Your task to perform on an android device: install app "Messenger Lite" Image 0: 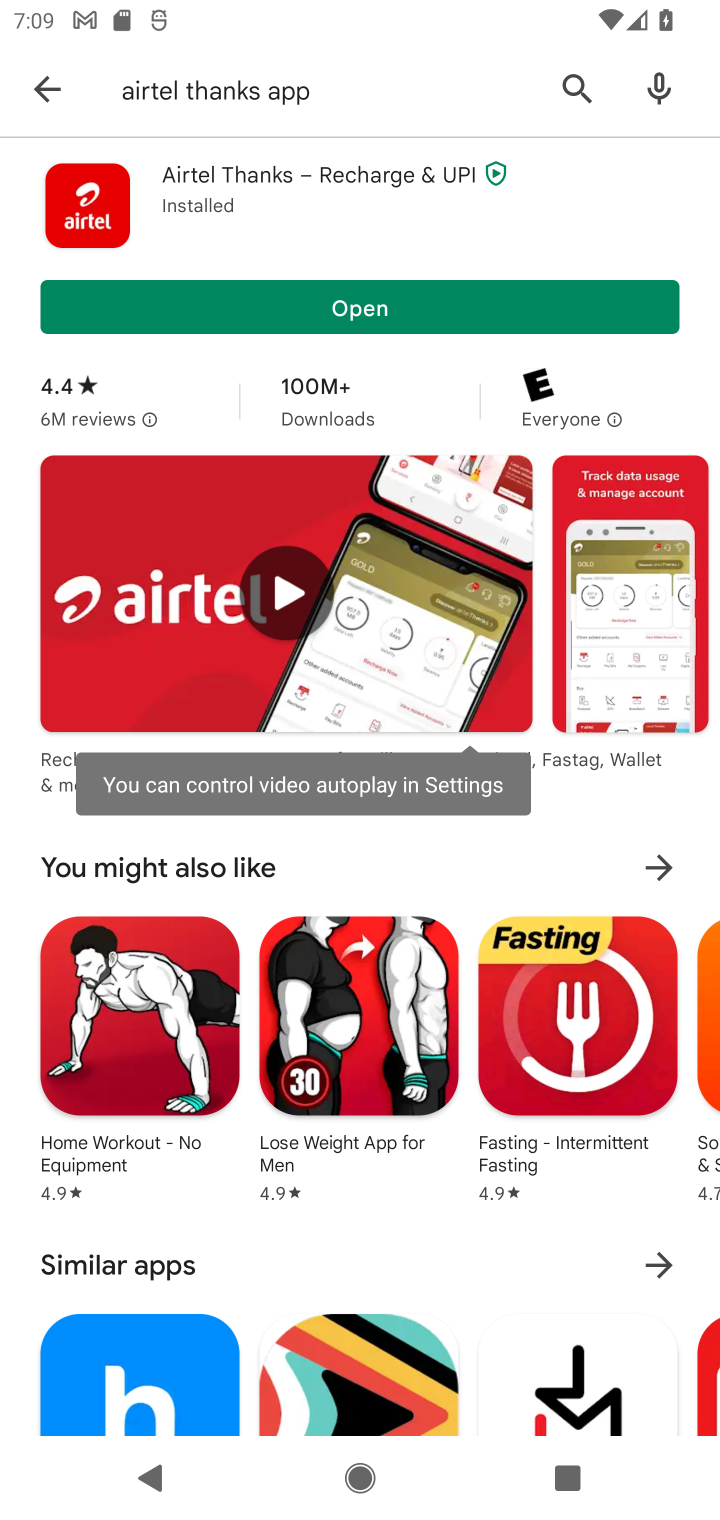
Step 0: press home button
Your task to perform on an android device: install app "Messenger Lite" Image 1: 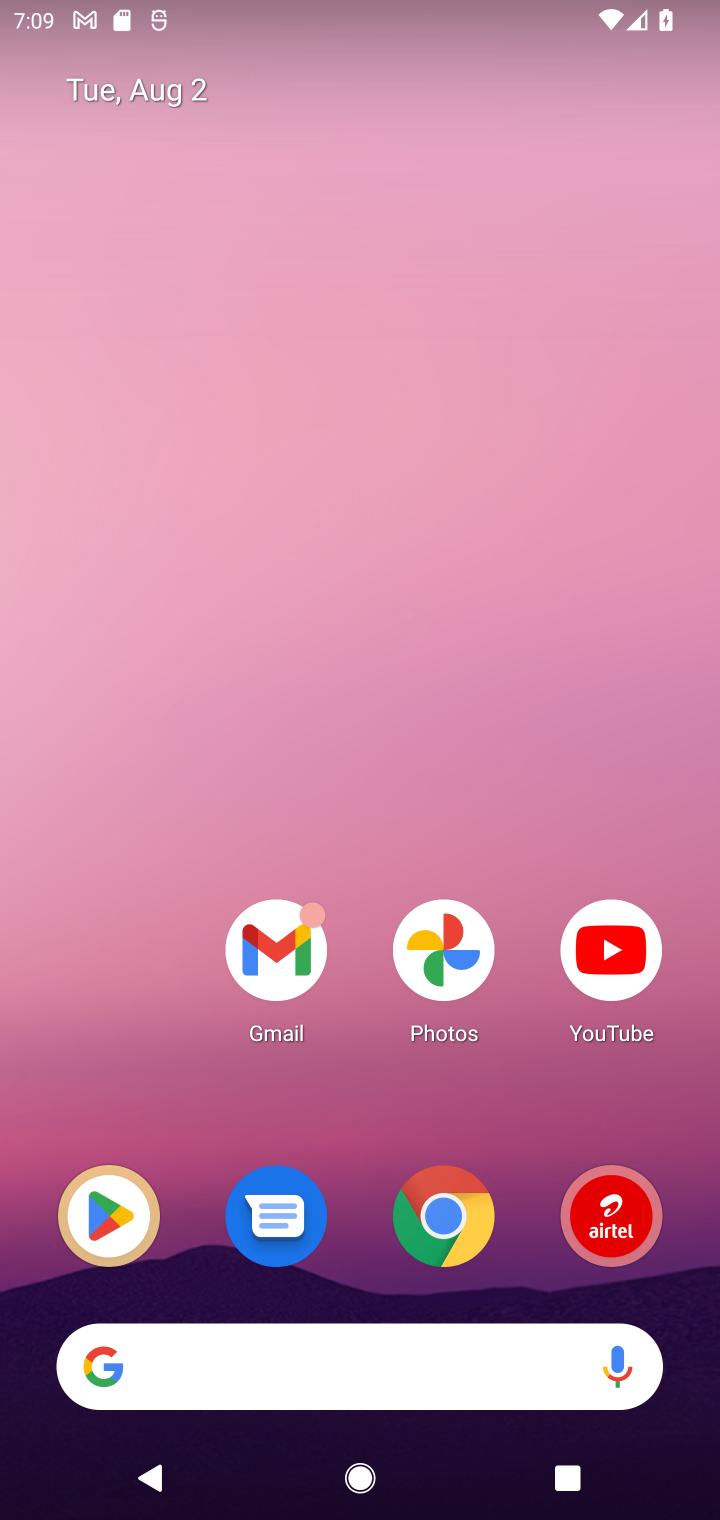
Step 1: click (93, 1220)
Your task to perform on an android device: install app "Messenger Lite" Image 2: 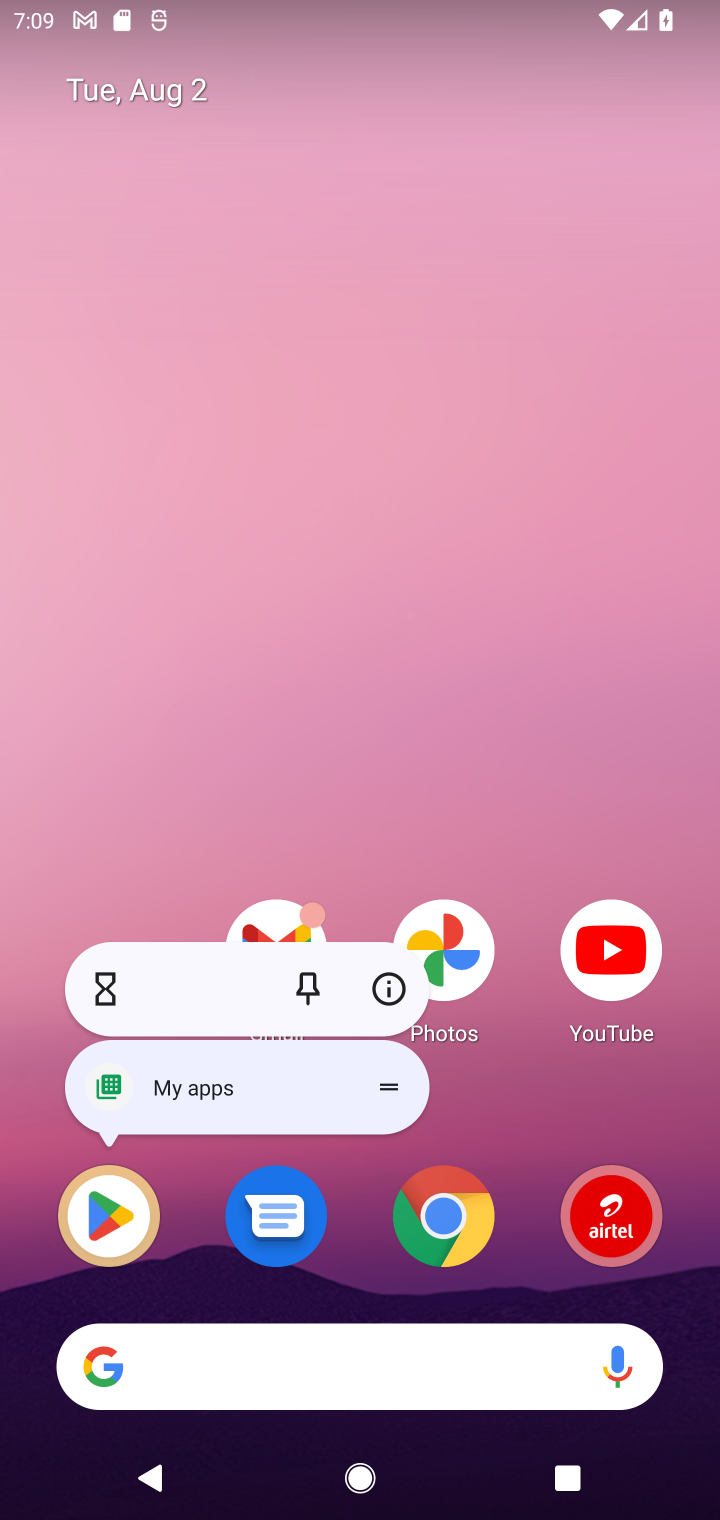
Step 2: click (104, 1216)
Your task to perform on an android device: install app "Messenger Lite" Image 3: 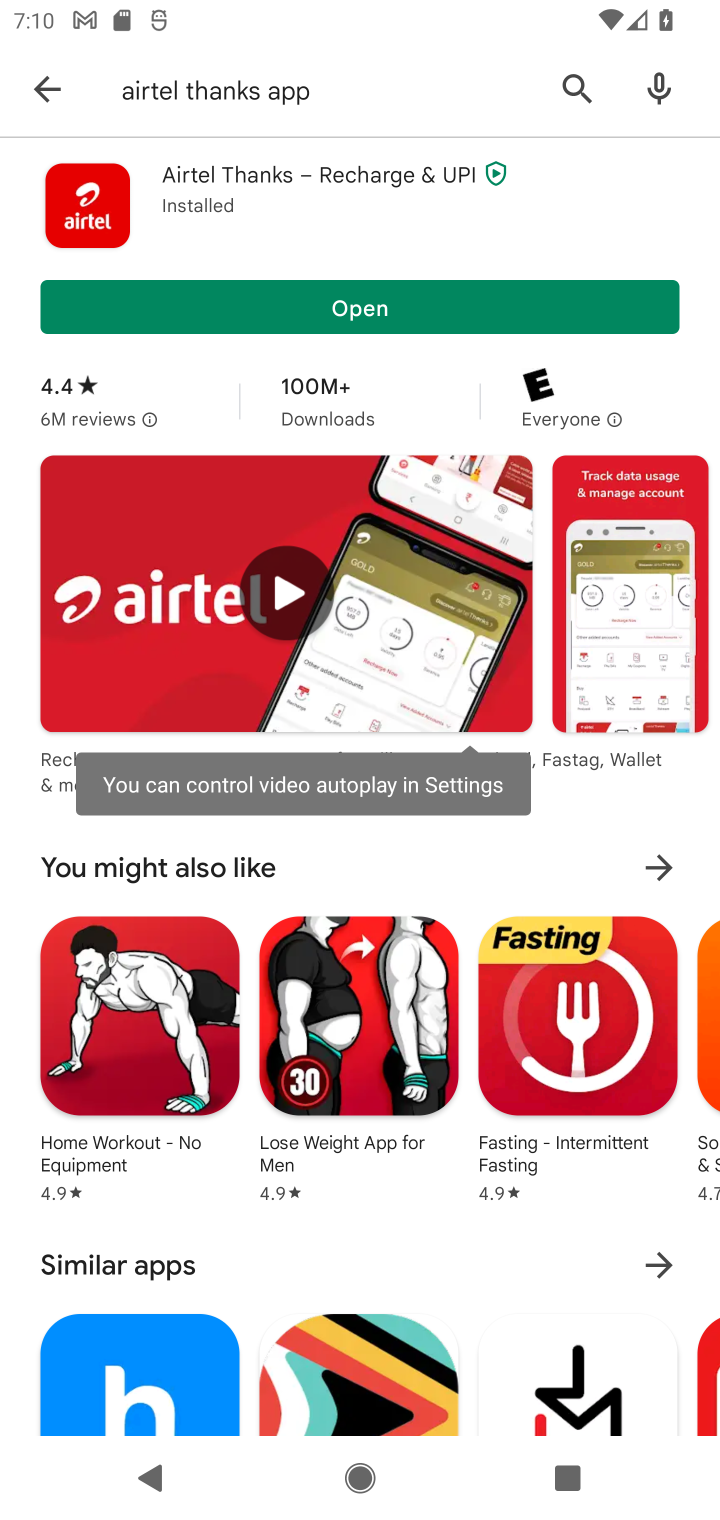
Step 3: click (564, 90)
Your task to perform on an android device: install app "Messenger Lite" Image 4: 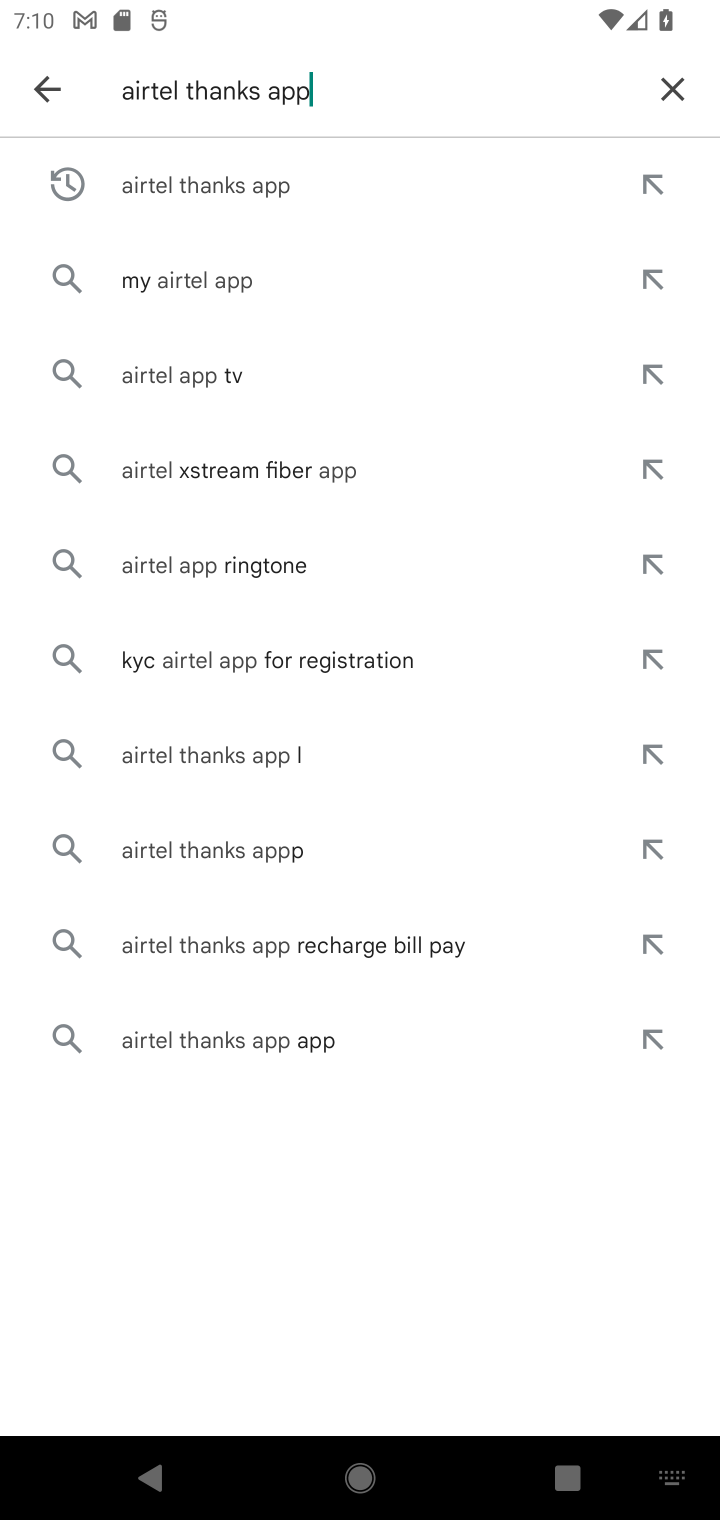
Step 4: click (663, 75)
Your task to perform on an android device: install app "Messenger Lite" Image 5: 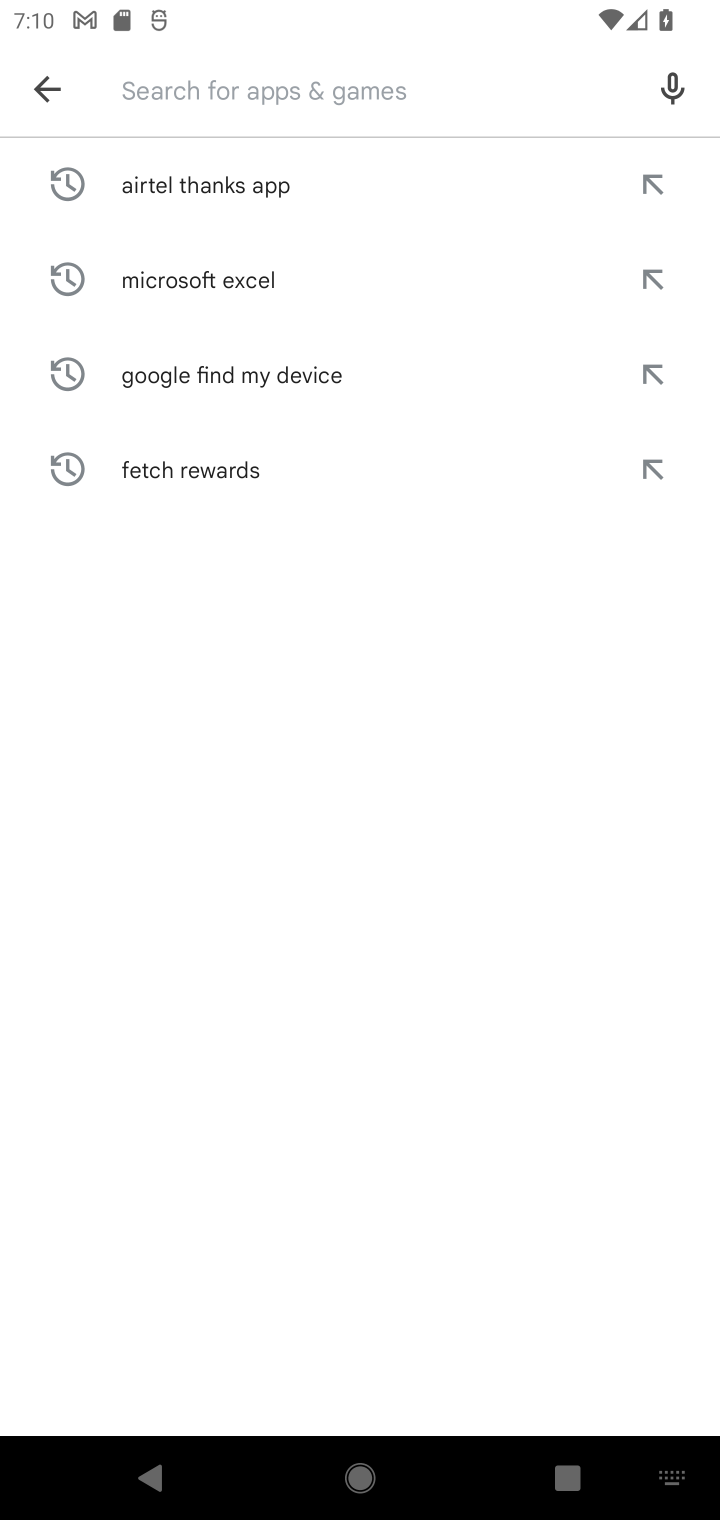
Step 5: type "Messenger Lite"
Your task to perform on an android device: install app "Messenger Lite" Image 6: 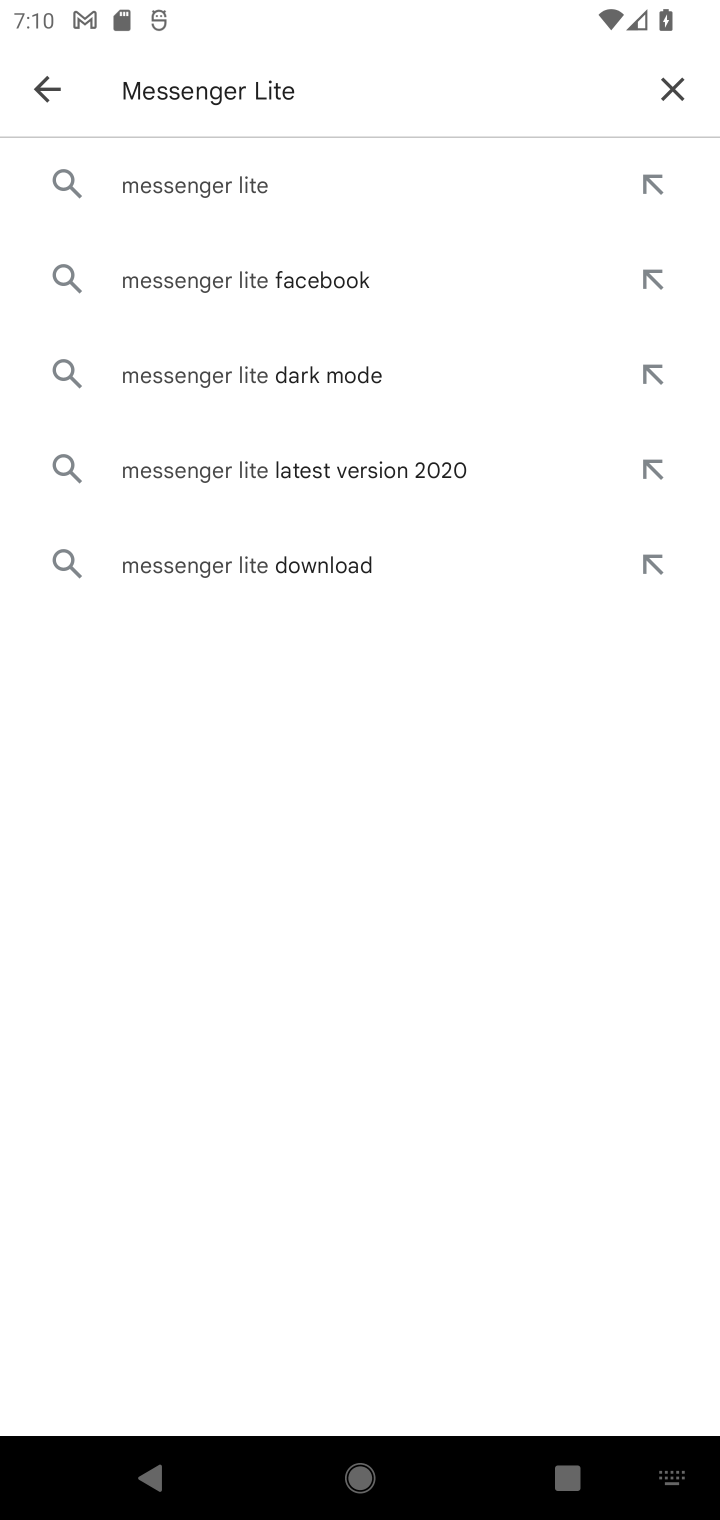
Step 6: click (226, 181)
Your task to perform on an android device: install app "Messenger Lite" Image 7: 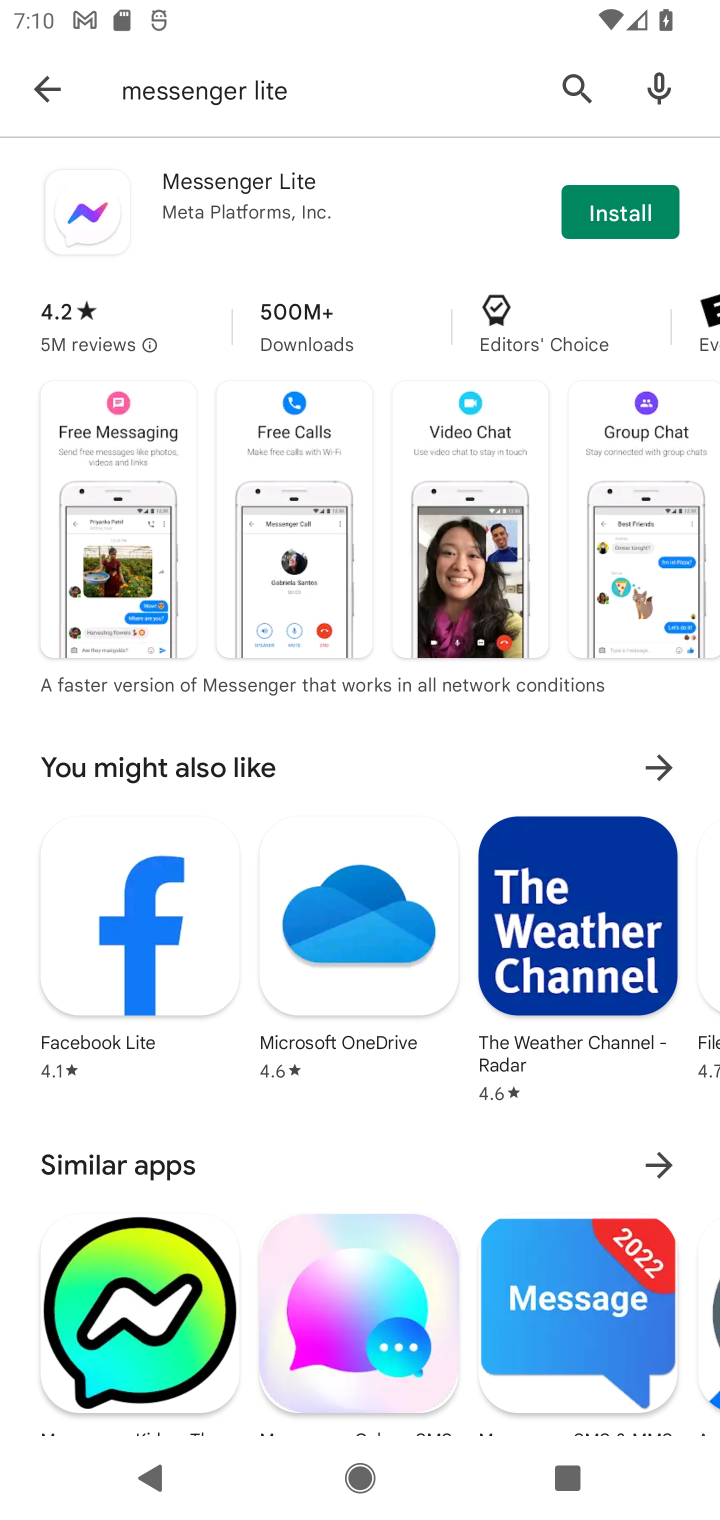
Step 7: click (629, 213)
Your task to perform on an android device: install app "Messenger Lite" Image 8: 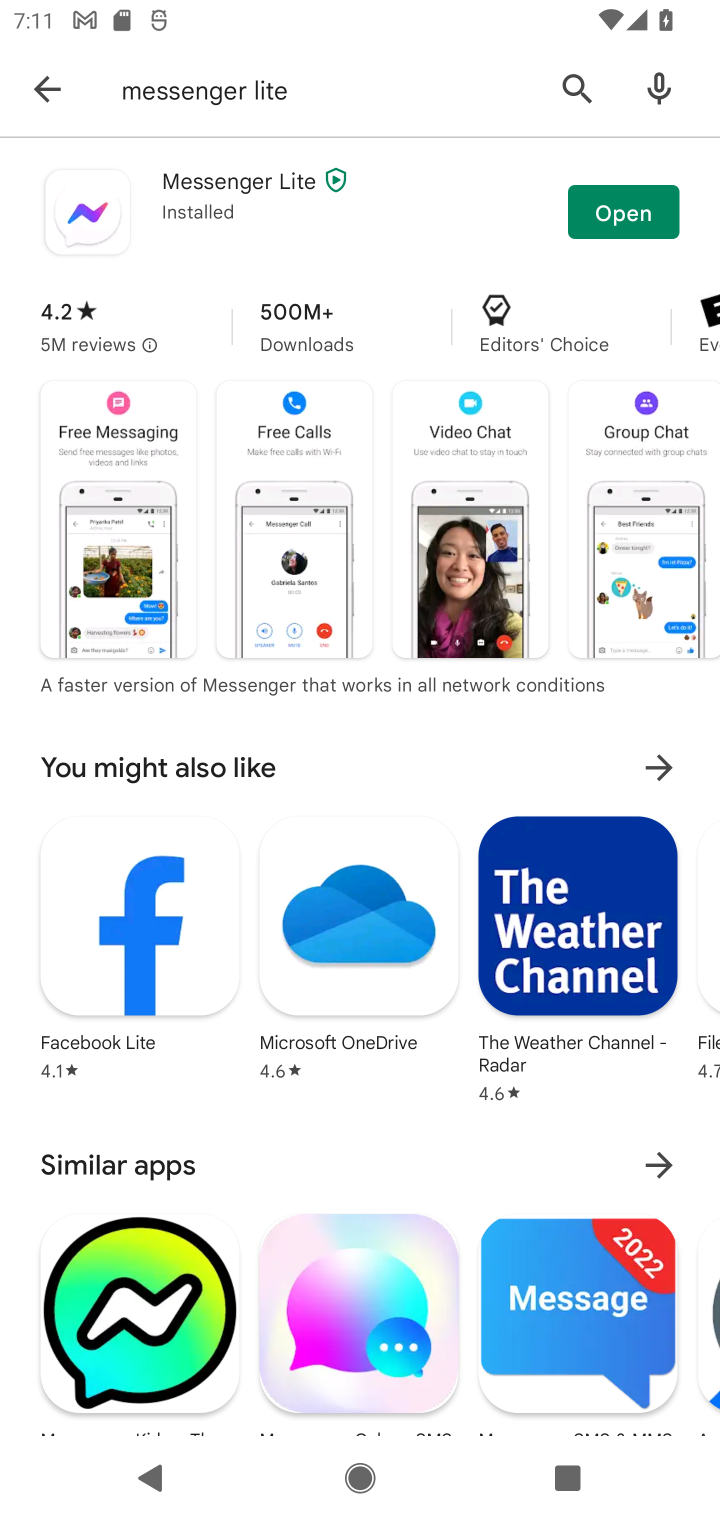
Step 8: task complete